Your task to perform on an android device: change the clock display to digital Image 0: 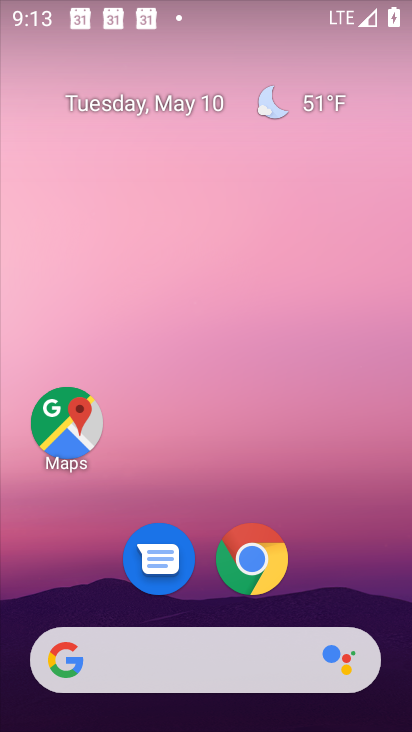
Step 0: drag from (345, 566) to (258, 10)
Your task to perform on an android device: change the clock display to digital Image 1: 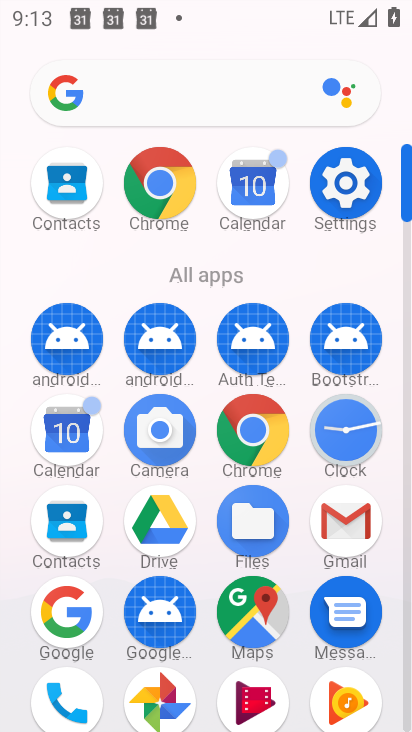
Step 1: click (346, 429)
Your task to perform on an android device: change the clock display to digital Image 2: 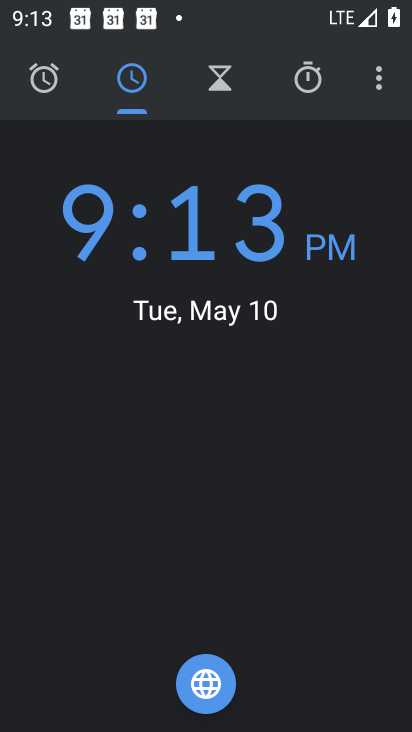
Step 2: click (379, 75)
Your task to perform on an android device: change the clock display to digital Image 3: 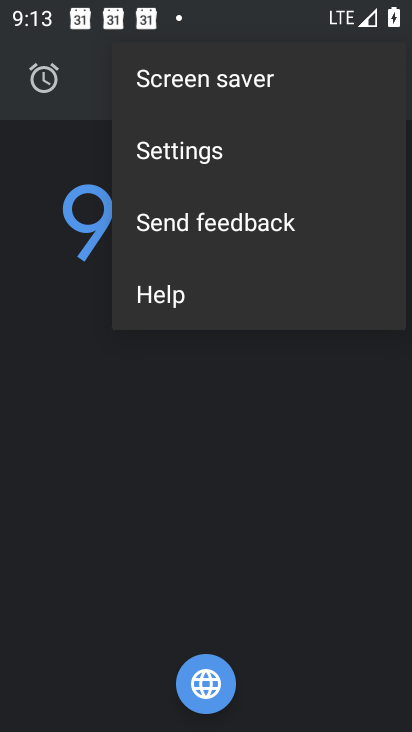
Step 3: click (222, 150)
Your task to perform on an android device: change the clock display to digital Image 4: 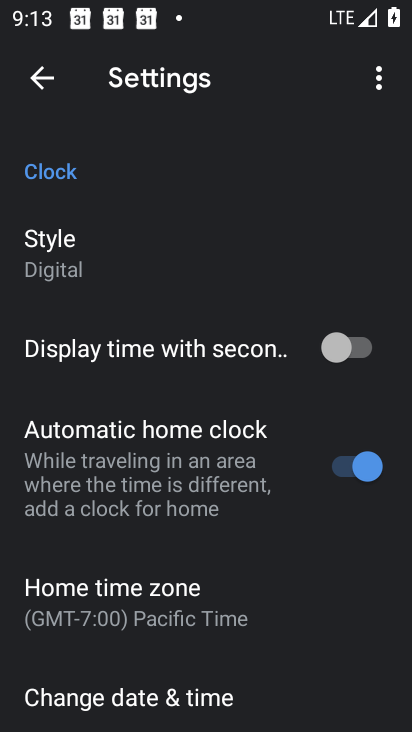
Step 4: click (65, 277)
Your task to perform on an android device: change the clock display to digital Image 5: 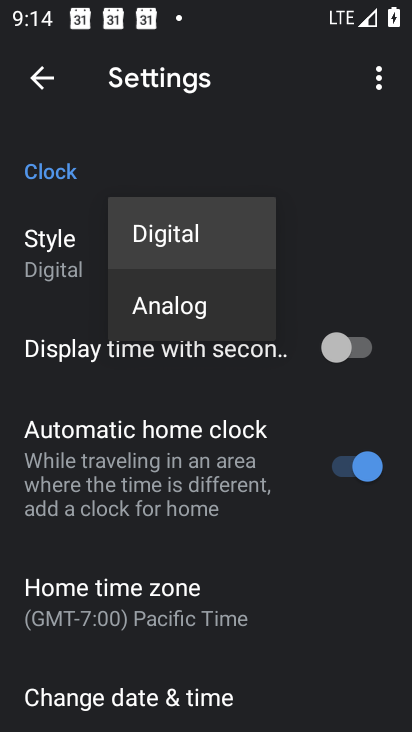
Step 5: click (176, 257)
Your task to perform on an android device: change the clock display to digital Image 6: 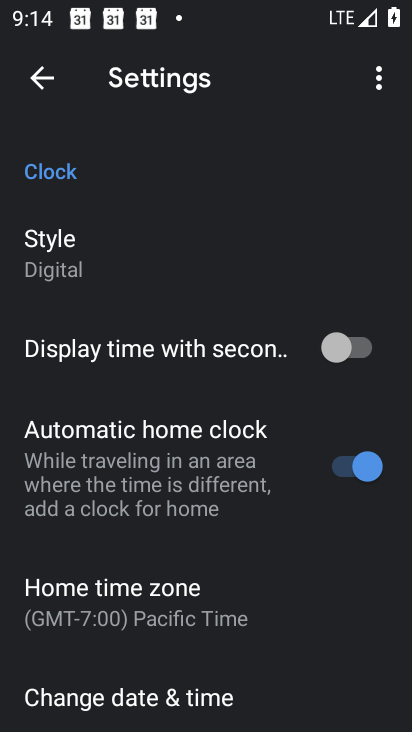
Step 6: task complete